Your task to perform on an android device: Clear all items from cart on walmart.com. Search for macbook pro on walmart.com, select the first entry, add it to the cart, then select checkout. Image 0: 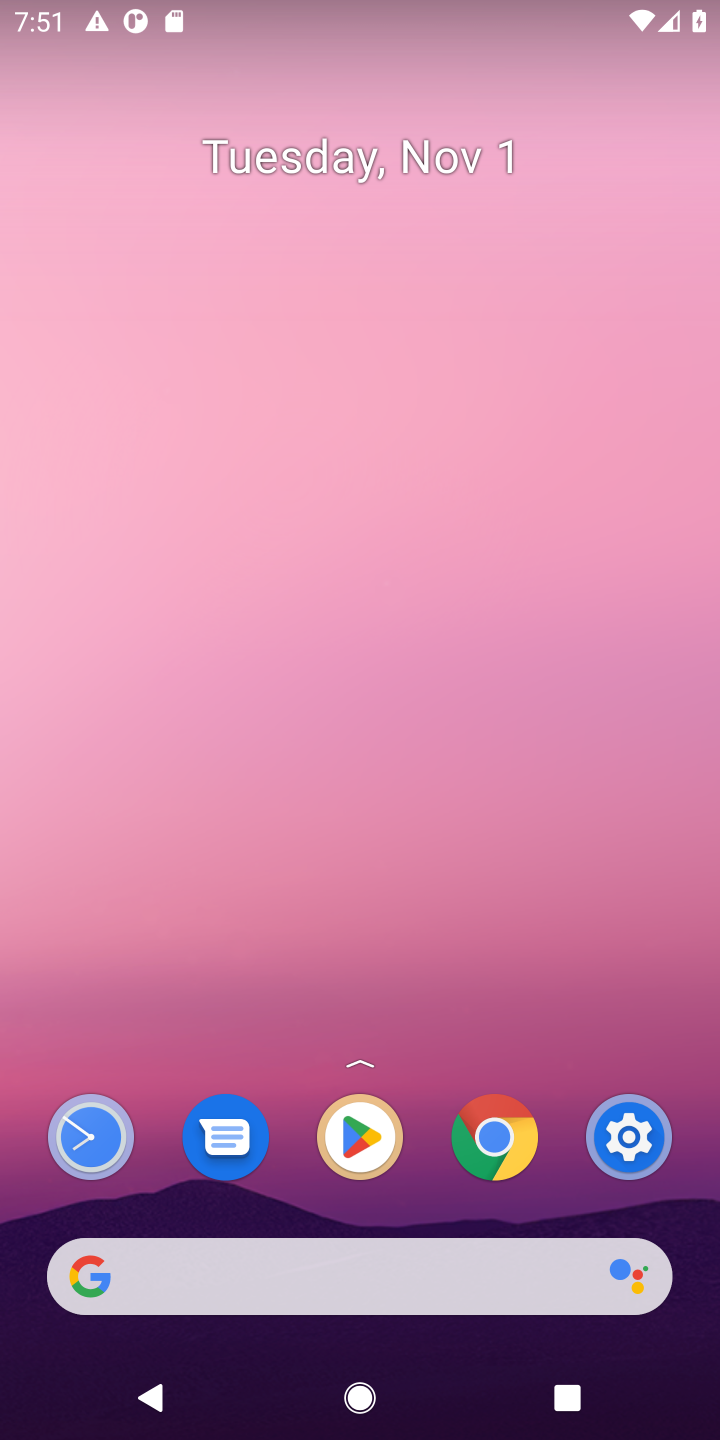
Step 0: click (378, 1276)
Your task to perform on an android device: Clear all items from cart on walmart.com. Search for macbook pro on walmart.com, select the first entry, add it to the cart, then select checkout. Image 1: 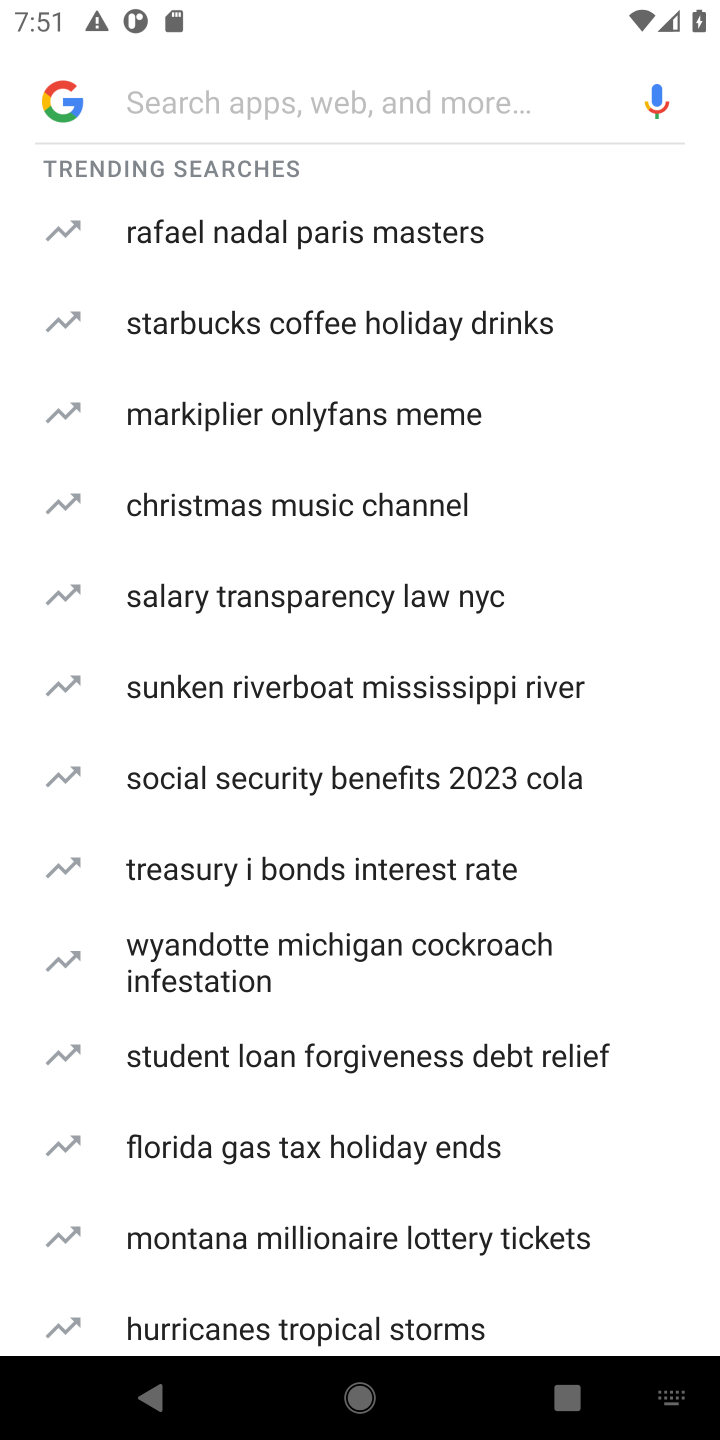
Step 1: type "walmart.com"
Your task to perform on an android device: Clear all items from cart on walmart.com. Search for macbook pro on walmart.com, select the first entry, add it to the cart, then select checkout. Image 2: 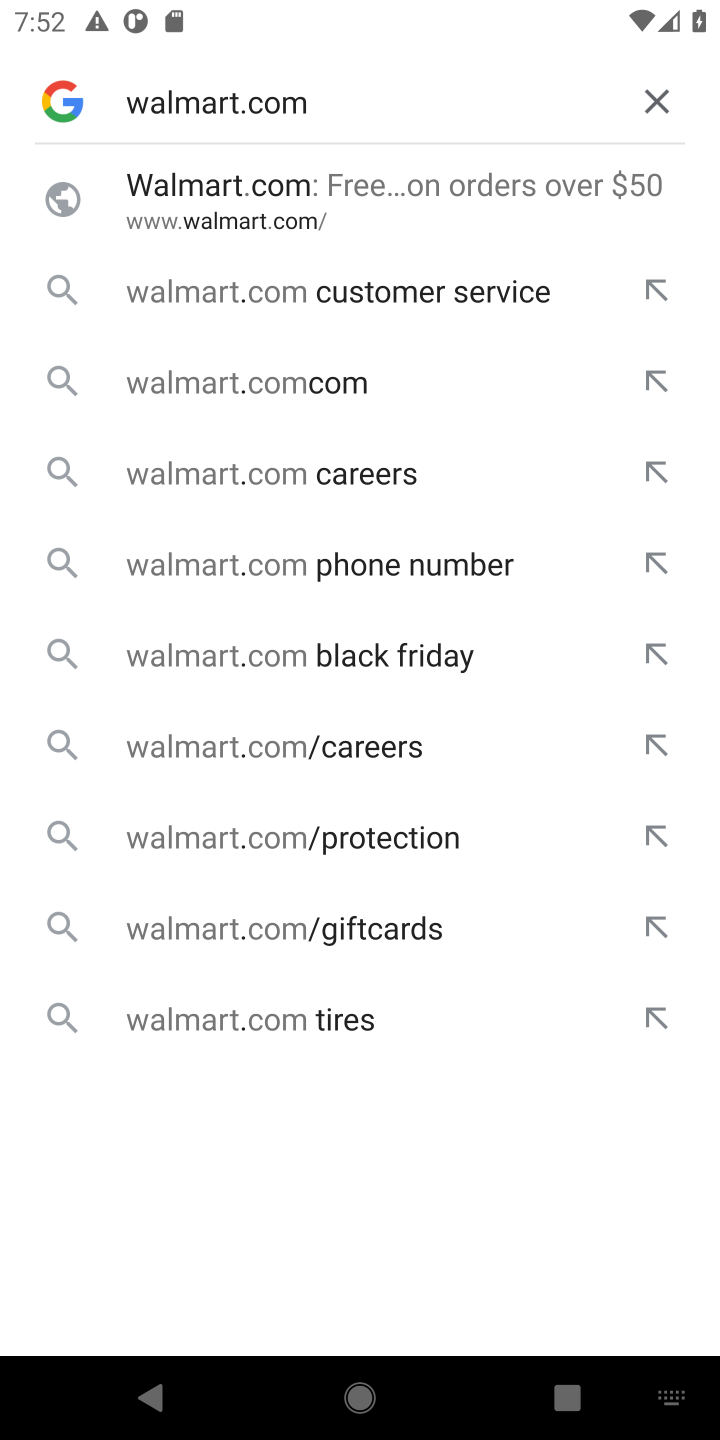
Step 2: click (245, 228)
Your task to perform on an android device: Clear all items from cart on walmart.com. Search for macbook pro on walmart.com, select the first entry, add it to the cart, then select checkout. Image 3: 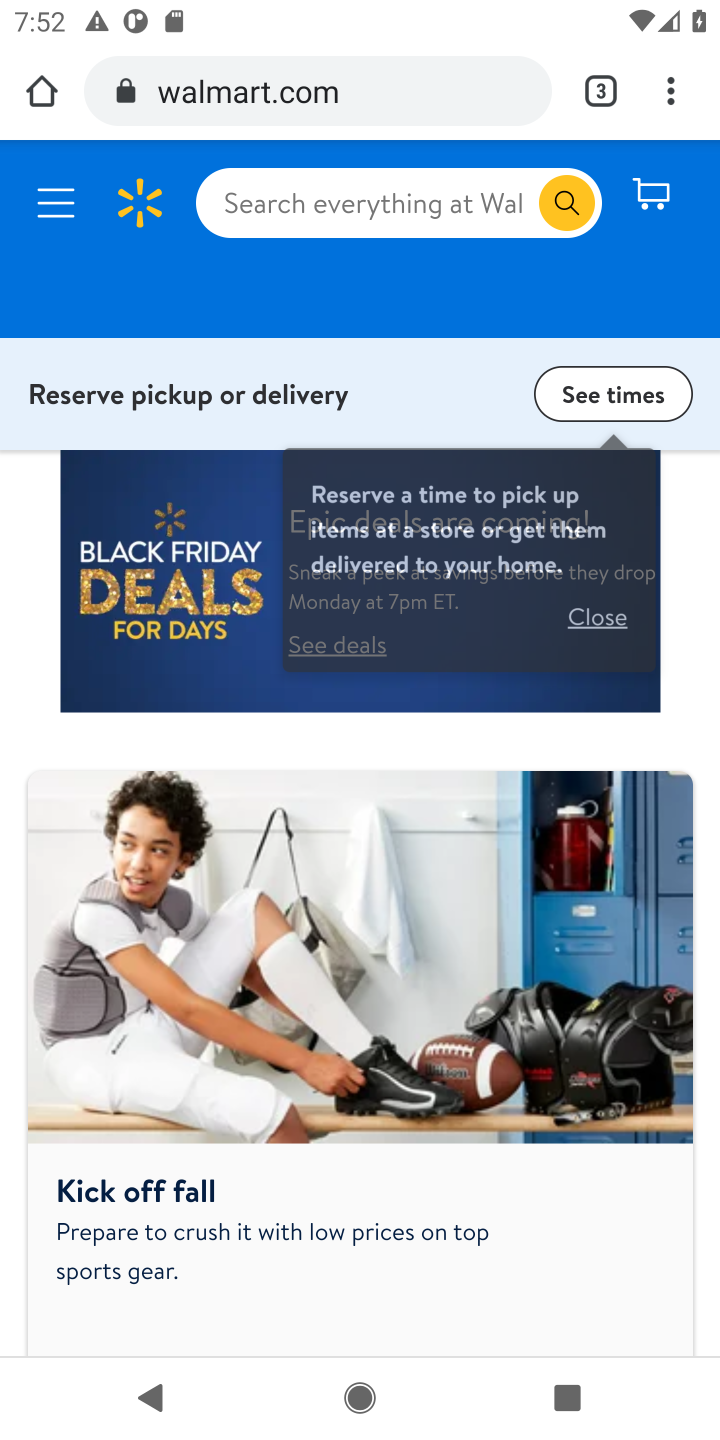
Step 3: click (646, 211)
Your task to perform on an android device: Clear all items from cart on walmart.com. Search for macbook pro on walmart.com, select the first entry, add it to the cart, then select checkout. Image 4: 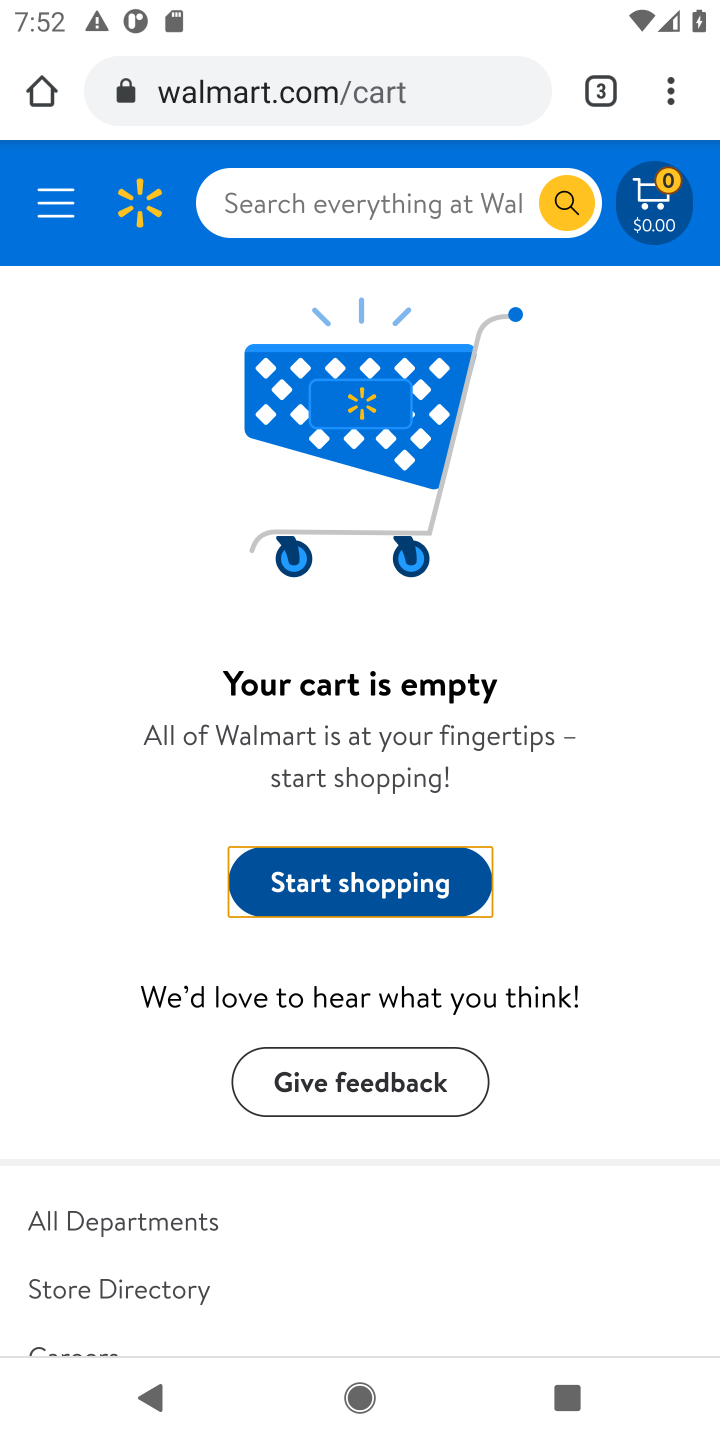
Step 4: click (469, 193)
Your task to perform on an android device: Clear all items from cart on walmart.com. Search for macbook pro on walmart.com, select the first entry, add it to the cart, then select checkout. Image 5: 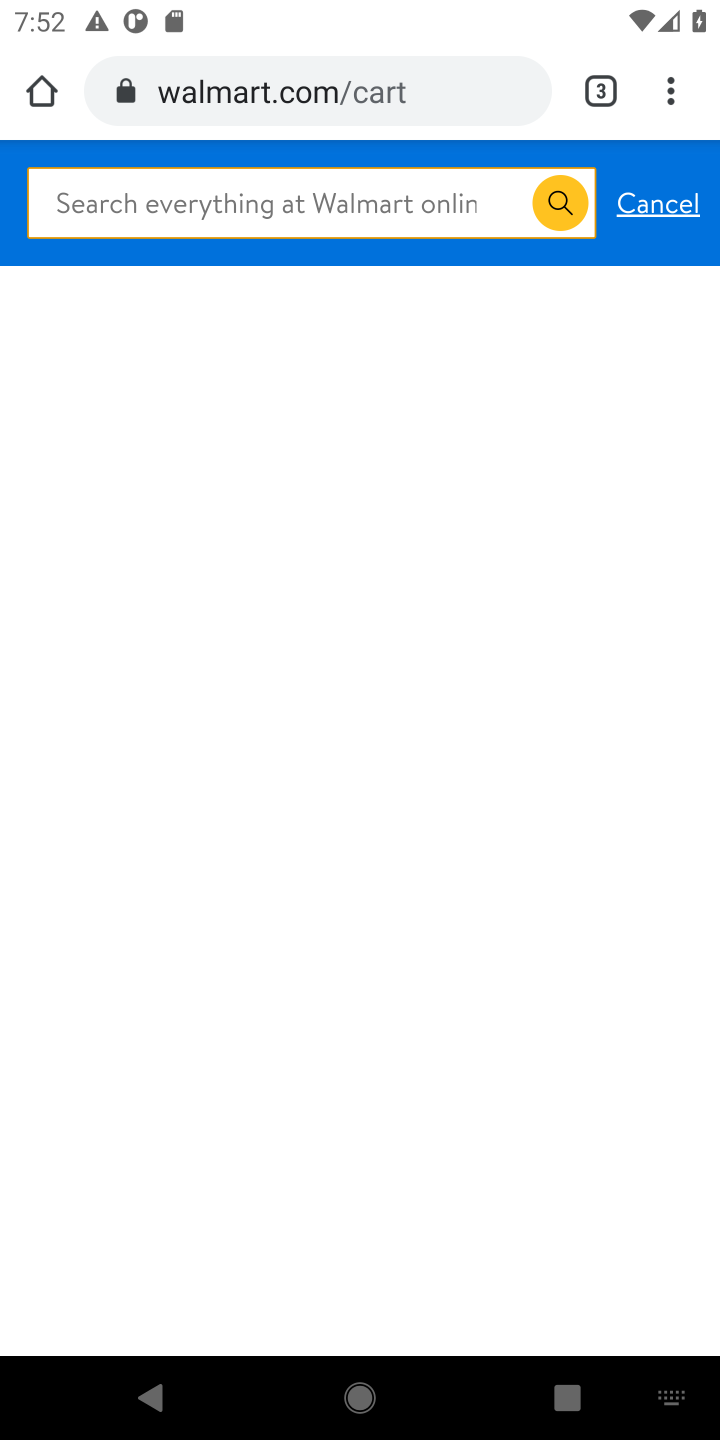
Step 5: type "macbook pro"
Your task to perform on an android device: Clear all items from cart on walmart.com. Search for macbook pro on walmart.com, select the first entry, add it to the cart, then select checkout. Image 6: 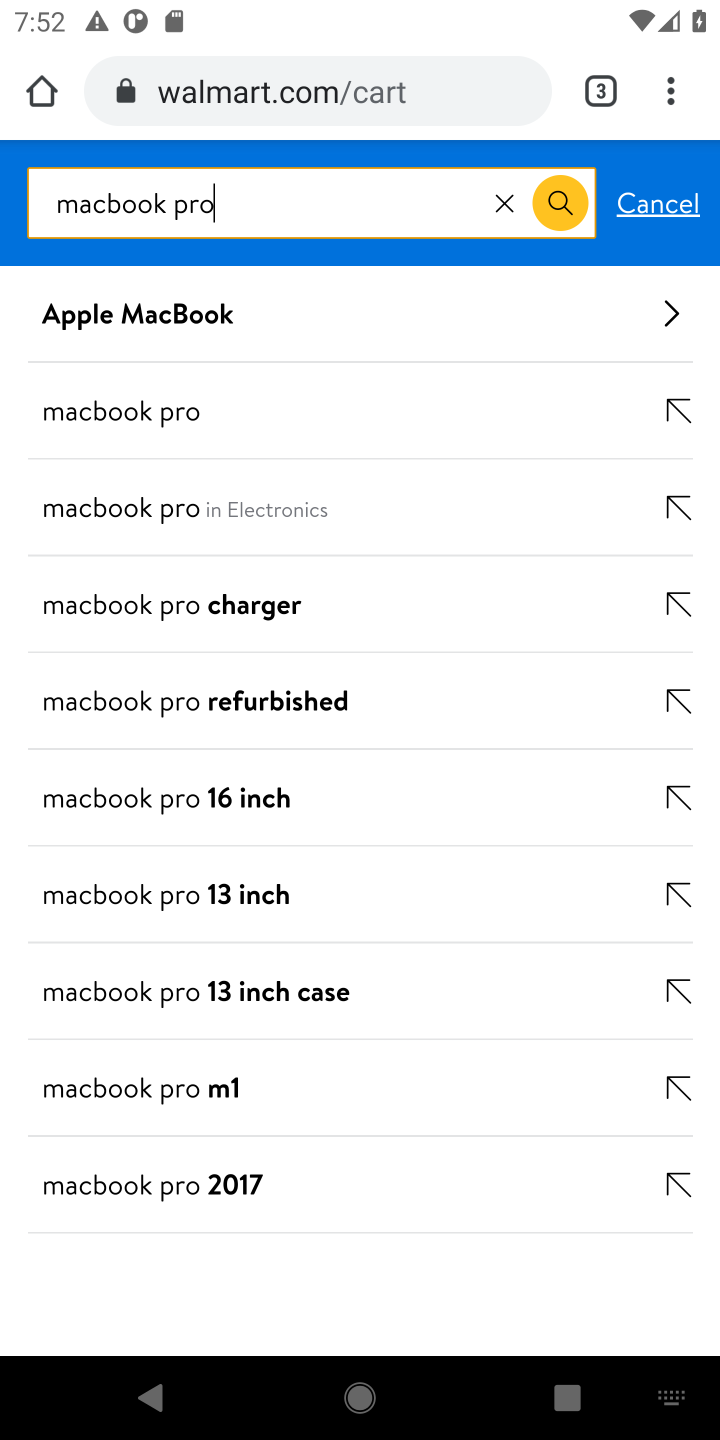
Step 6: click (143, 411)
Your task to perform on an android device: Clear all items from cart on walmart.com. Search for macbook pro on walmart.com, select the first entry, add it to the cart, then select checkout. Image 7: 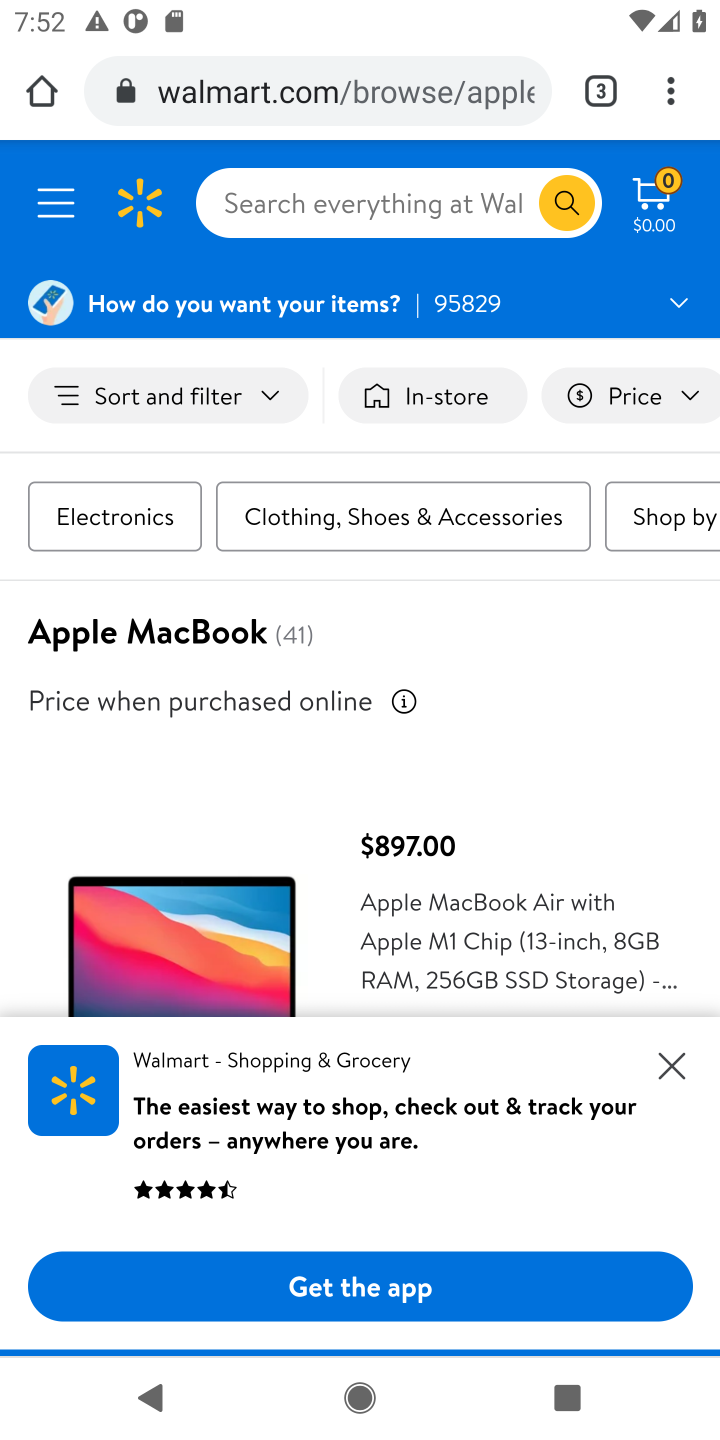
Step 7: click (672, 1058)
Your task to perform on an android device: Clear all items from cart on walmart.com. Search for macbook pro on walmart.com, select the first entry, add it to the cart, then select checkout. Image 8: 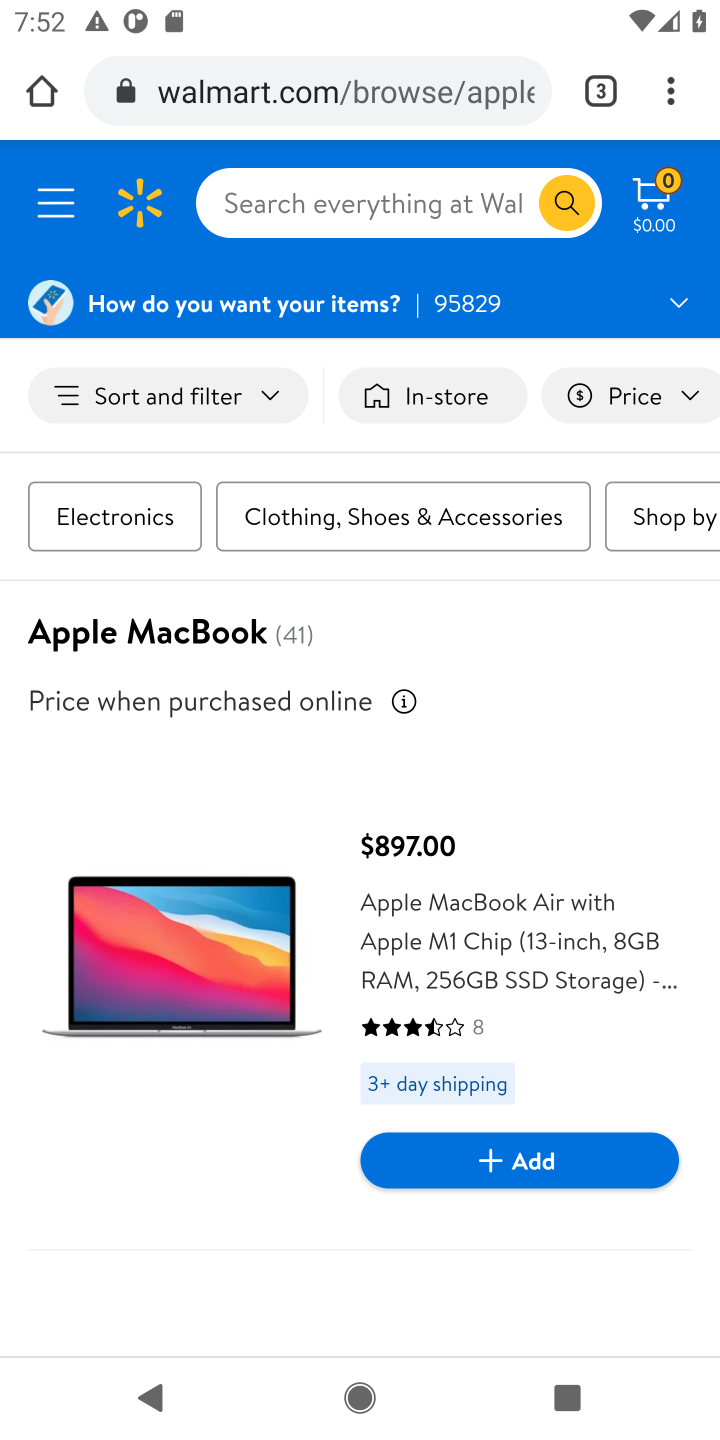
Step 8: click (496, 1174)
Your task to perform on an android device: Clear all items from cart on walmart.com. Search for macbook pro on walmart.com, select the first entry, add it to the cart, then select checkout. Image 9: 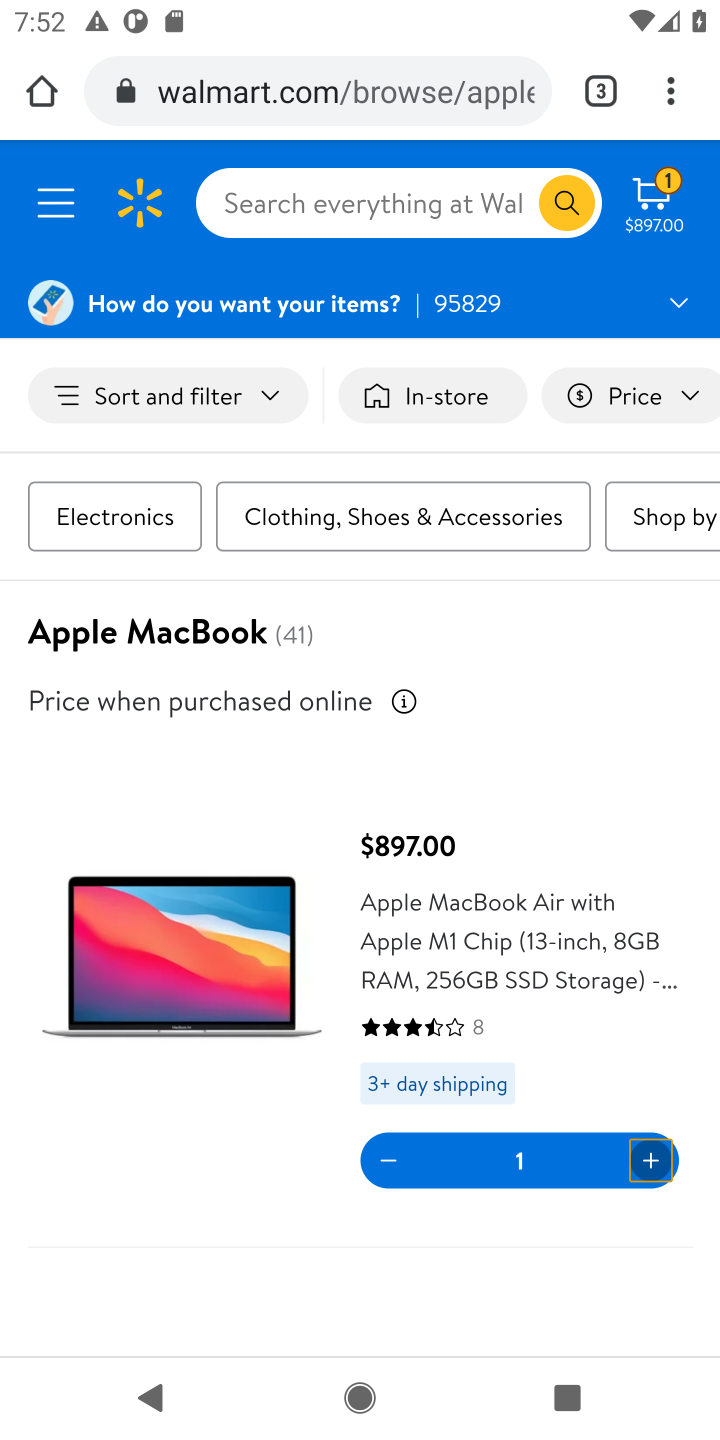
Step 9: click (660, 207)
Your task to perform on an android device: Clear all items from cart on walmart.com. Search for macbook pro on walmart.com, select the first entry, add it to the cart, then select checkout. Image 10: 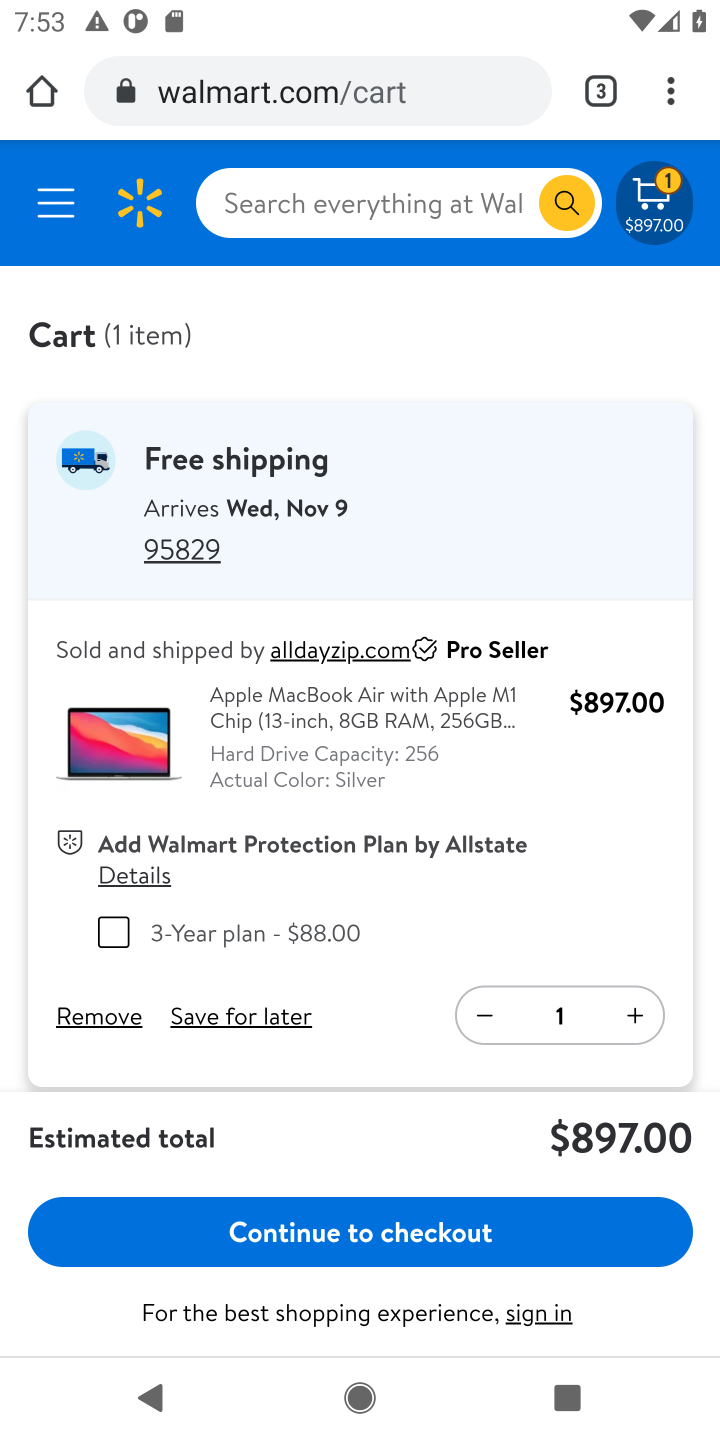
Step 10: click (368, 1246)
Your task to perform on an android device: Clear all items from cart on walmart.com. Search for macbook pro on walmart.com, select the first entry, add it to the cart, then select checkout. Image 11: 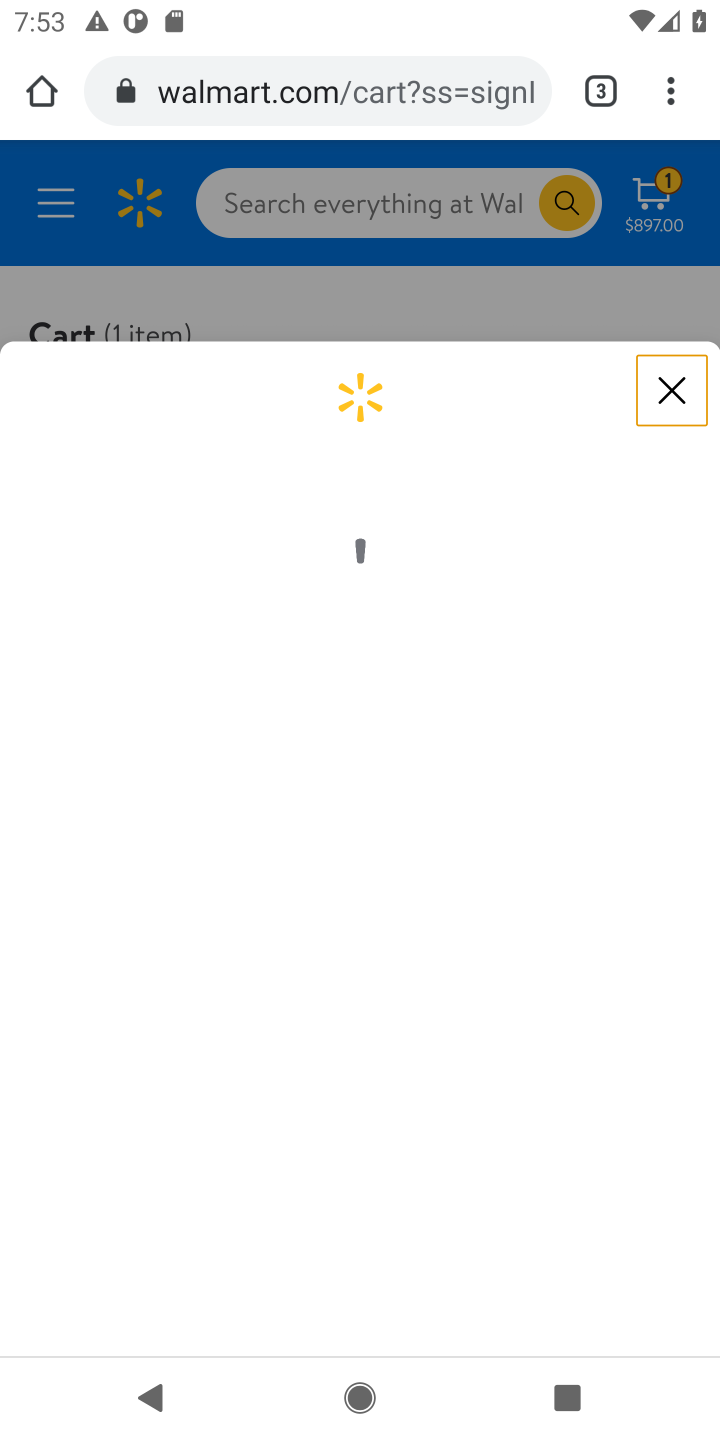
Step 11: task complete